Your task to perform on an android device: star an email in the gmail app Image 0: 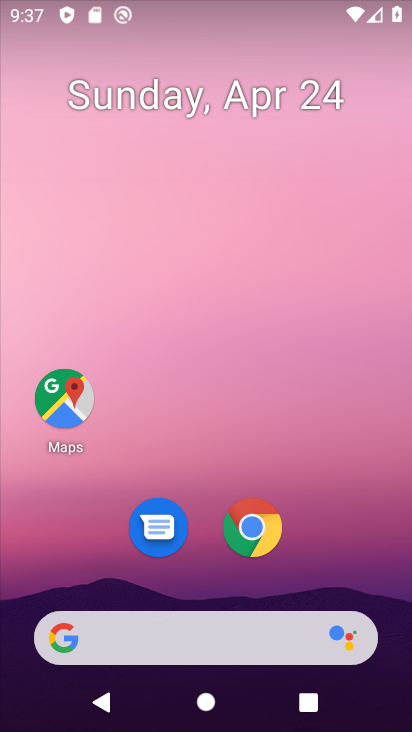
Step 0: drag from (178, 620) to (260, 169)
Your task to perform on an android device: star an email in the gmail app Image 1: 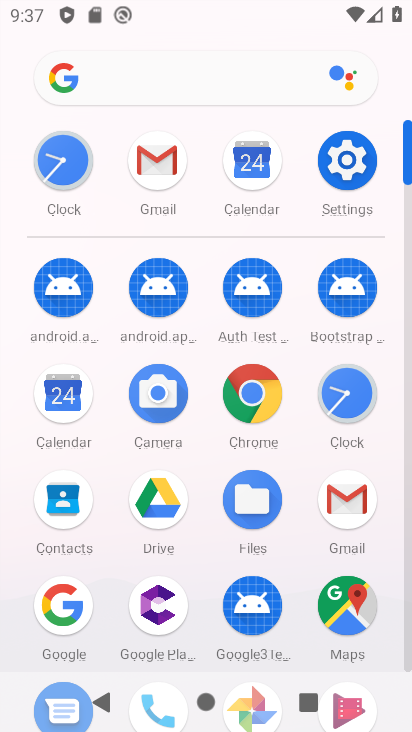
Step 1: click (154, 160)
Your task to perform on an android device: star an email in the gmail app Image 2: 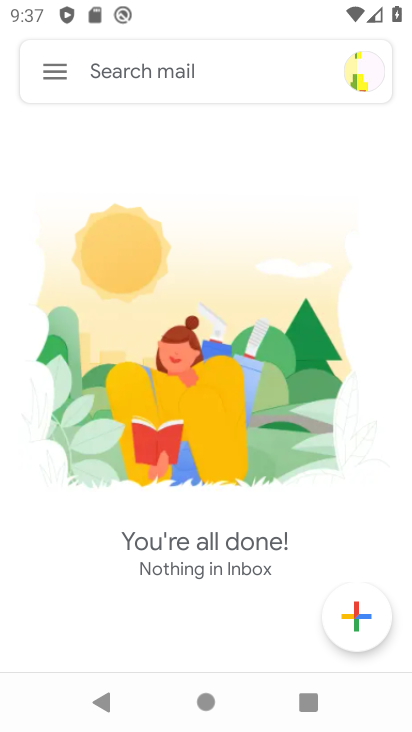
Step 2: click (56, 70)
Your task to perform on an android device: star an email in the gmail app Image 3: 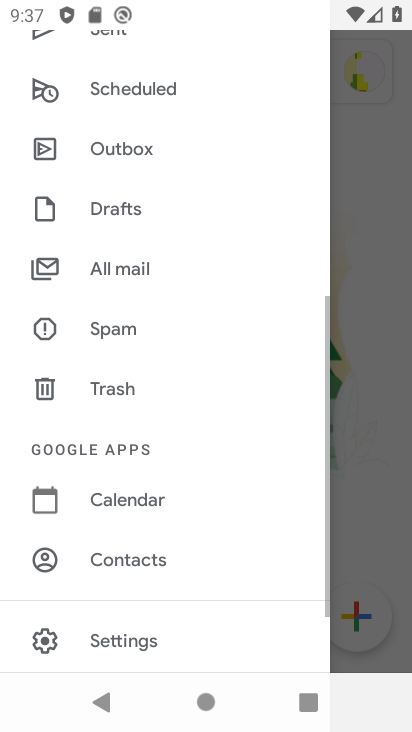
Step 3: click (151, 266)
Your task to perform on an android device: star an email in the gmail app Image 4: 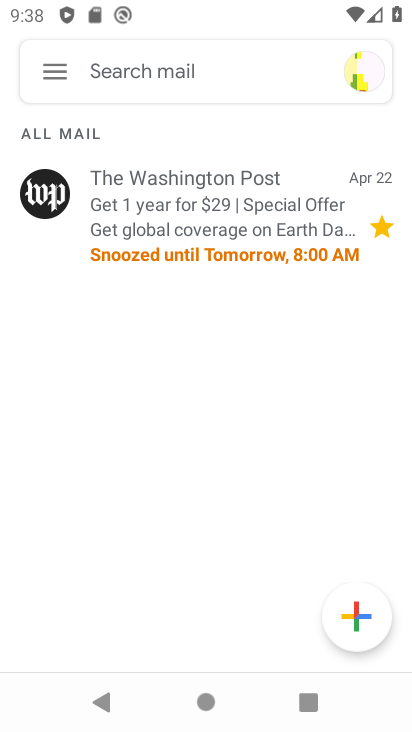
Step 4: task complete